Your task to perform on an android device: install app "Google Docs" Image 0: 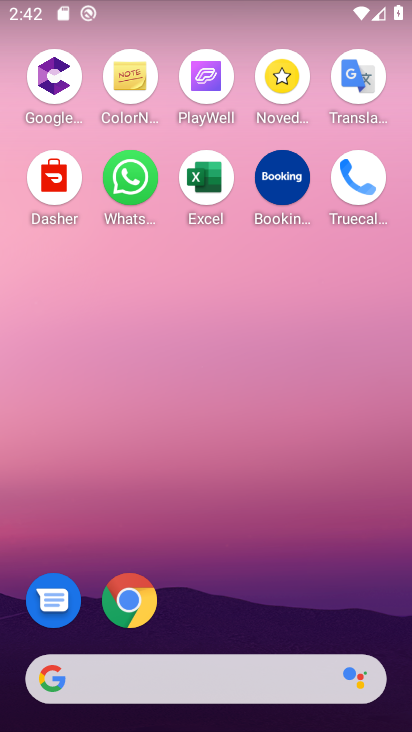
Step 0: drag from (244, 596) to (236, 45)
Your task to perform on an android device: install app "Google Docs" Image 1: 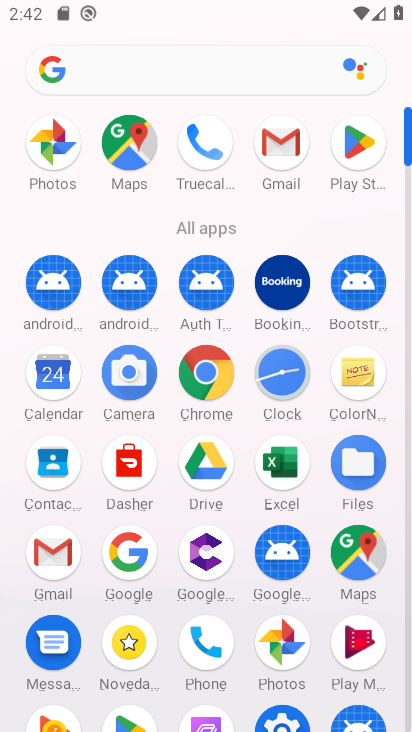
Step 1: click (341, 141)
Your task to perform on an android device: install app "Google Docs" Image 2: 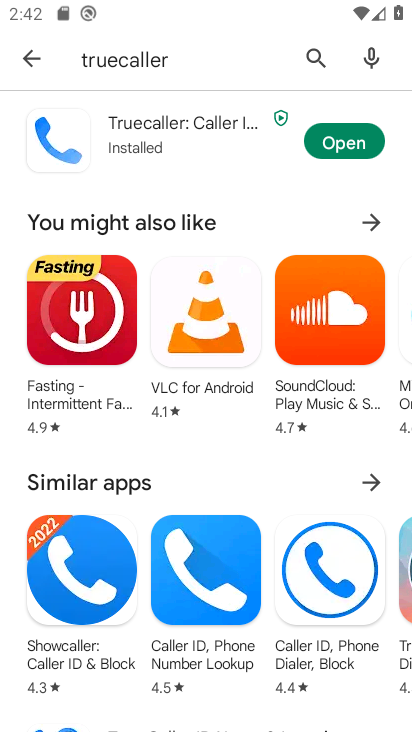
Step 2: click (320, 61)
Your task to perform on an android device: install app "Google Docs" Image 3: 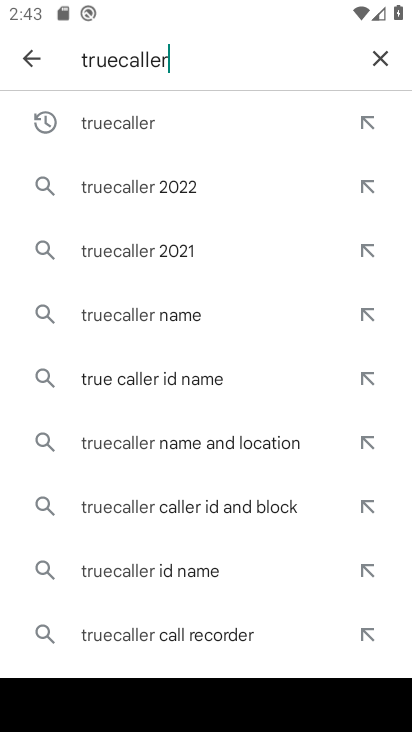
Step 3: click (373, 54)
Your task to perform on an android device: install app "Google Docs" Image 4: 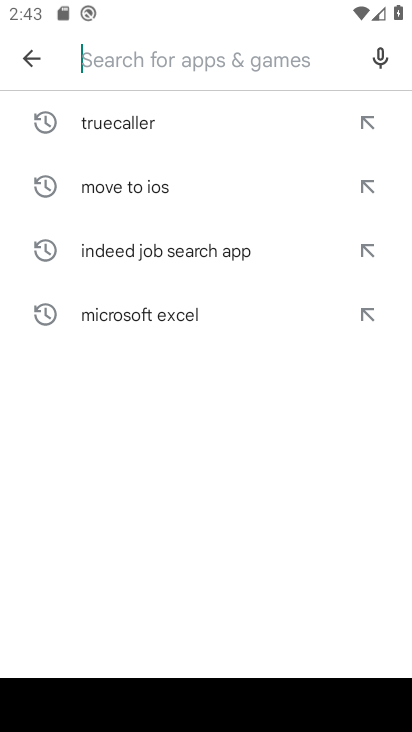
Step 4: click (184, 57)
Your task to perform on an android device: install app "Google Docs" Image 5: 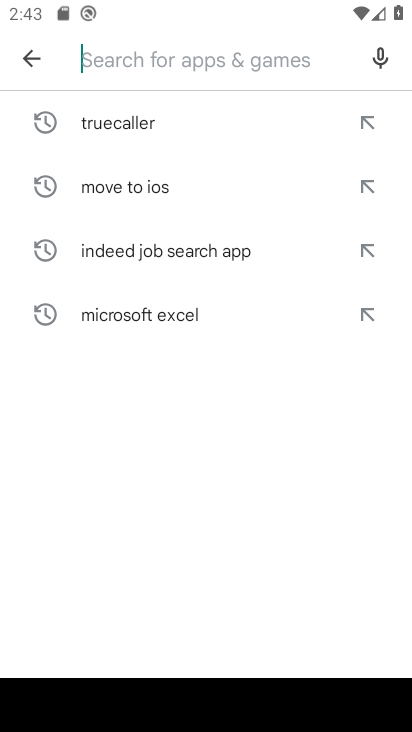
Step 5: type "Google Docs"
Your task to perform on an android device: install app "Google Docs" Image 6: 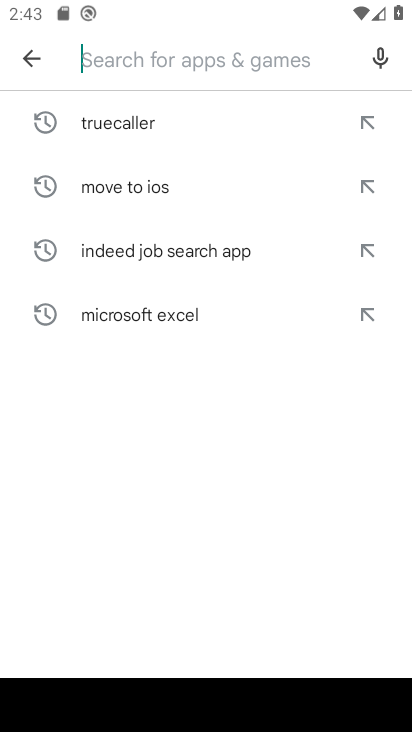
Step 6: click (153, 508)
Your task to perform on an android device: install app "Google Docs" Image 7: 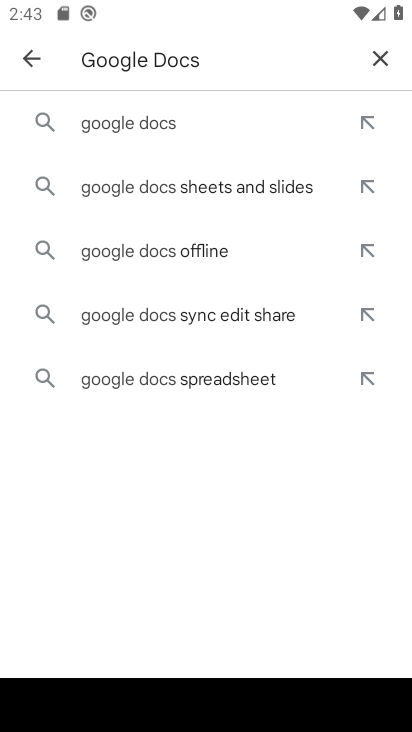
Step 7: click (131, 129)
Your task to perform on an android device: install app "Google Docs" Image 8: 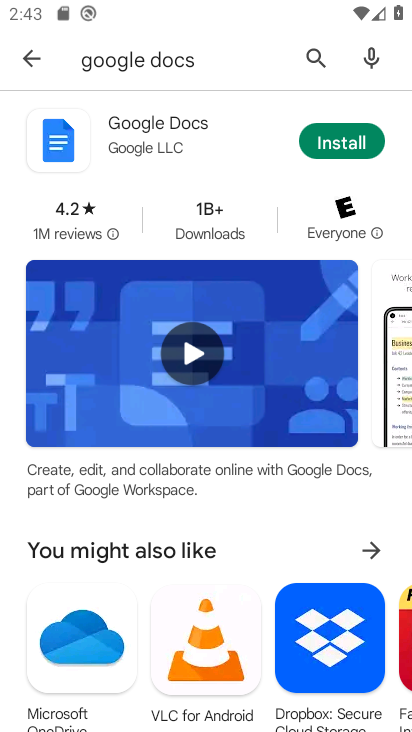
Step 8: click (323, 144)
Your task to perform on an android device: install app "Google Docs" Image 9: 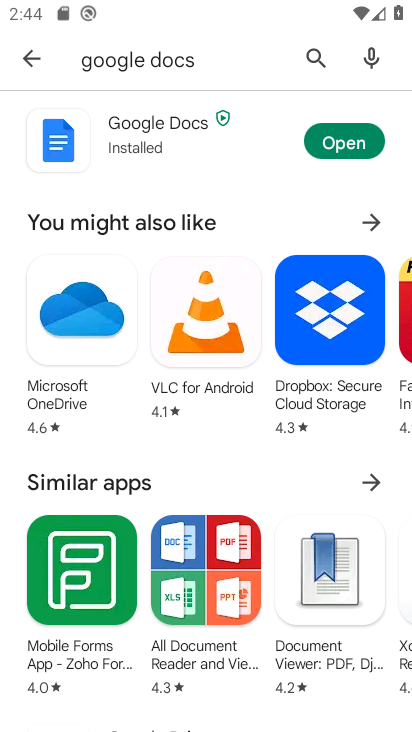
Step 9: task complete